Your task to perform on an android device: change the clock display to show seconds Image 0: 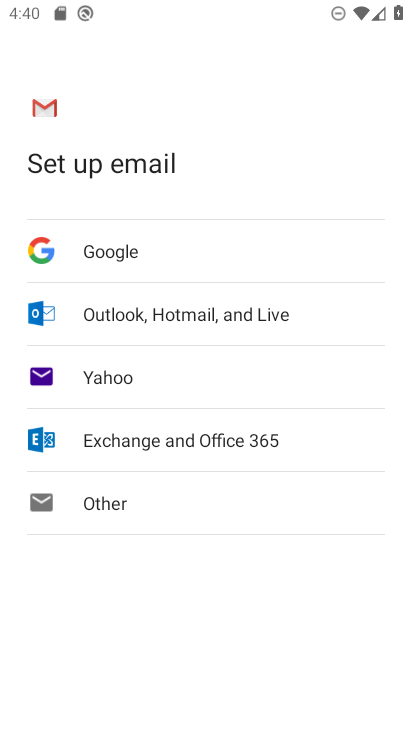
Step 0: press home button
Your task to perform on an android device: change the clock display to show seconds Image 1: 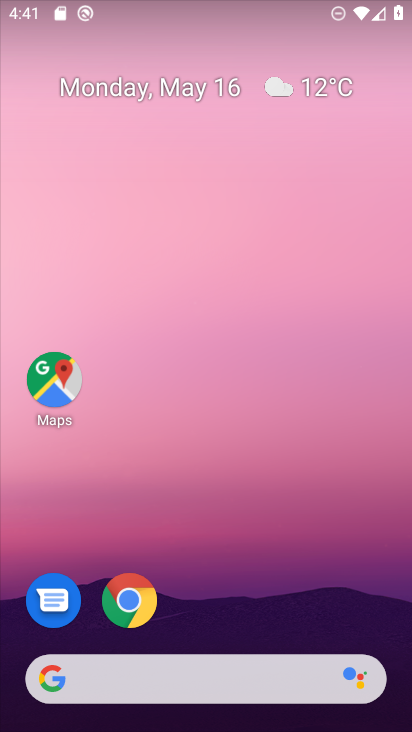
Step 1: drag from (255, 571) to (239, 0)
Your task to perform on an android device: change the clock display to show seconds Image 2: 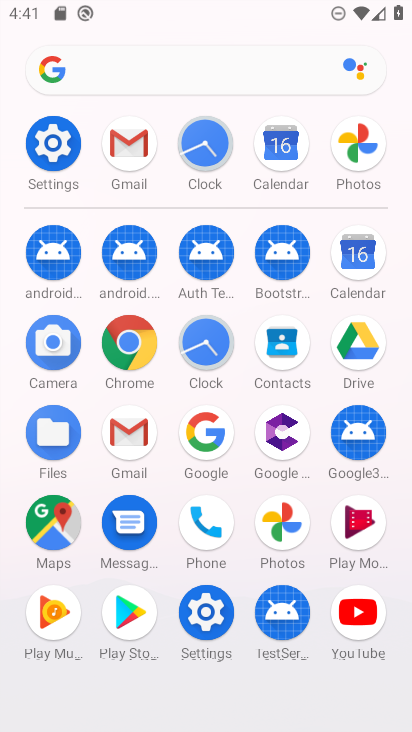
Step 2: click (202, 183)
Your task to perform on an android device: change the clock display to show seconds Image 3: 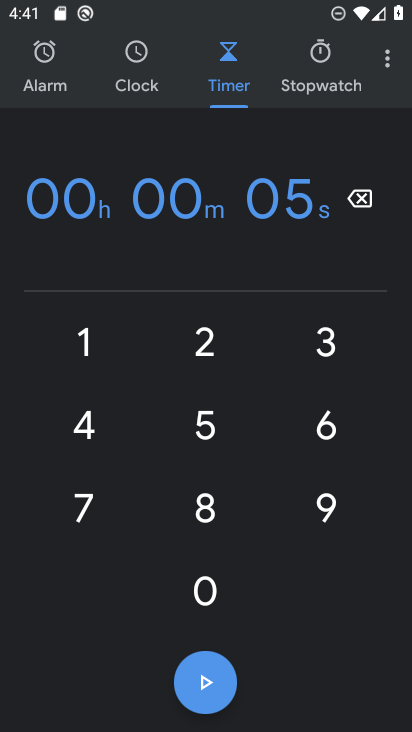
Step 3: task complete